Your task to perform on an android device: Open Wikipedia Image 0: 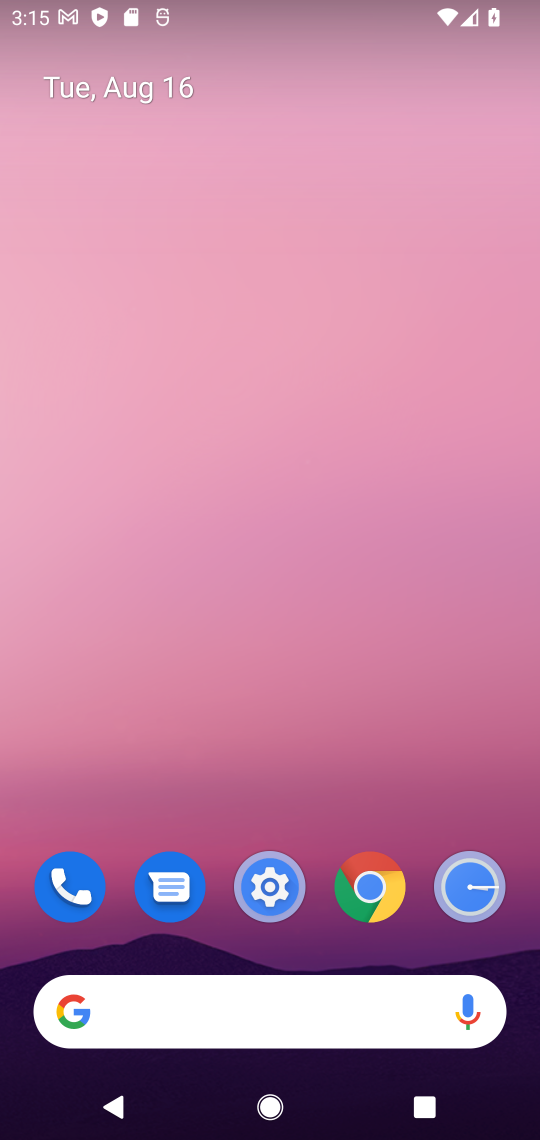
Step 0: drag from (394, 807) to (341, 2)
Your task to perform on an android device: Open Wikipedia Image 1: 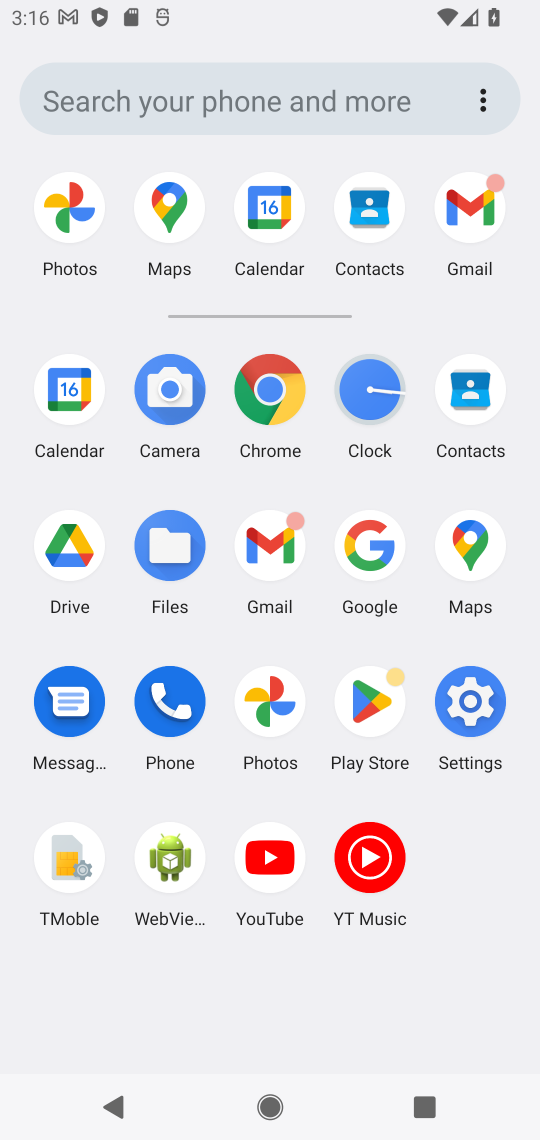
Step 1: click (267, 399)
Your task to perform on an android device: Open Wikipedia Image 2: 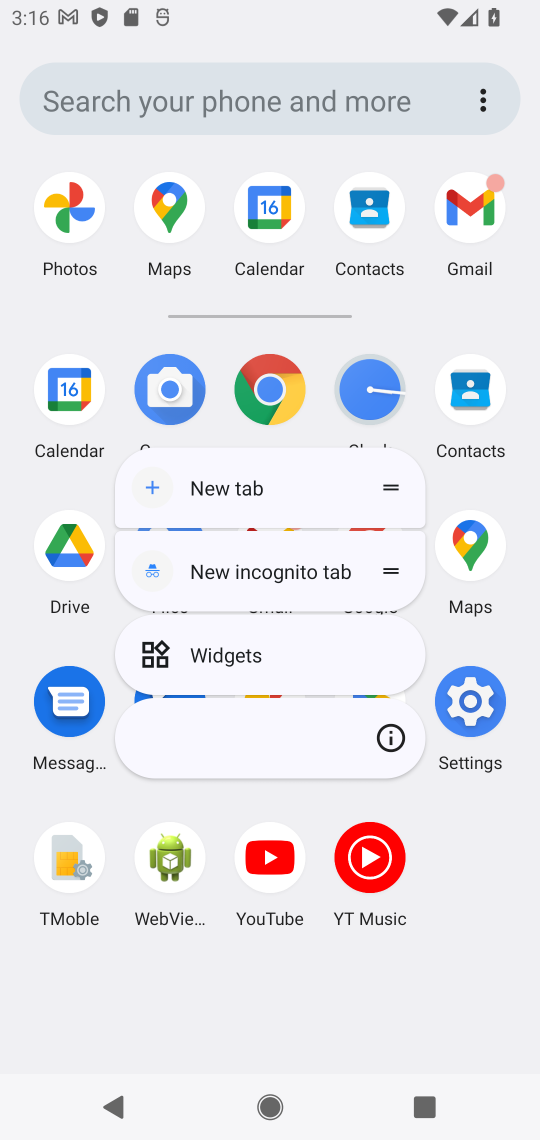
Step 2: click (267, 399)
Your task to perform on an android device: Open Wikipedia Image 3: 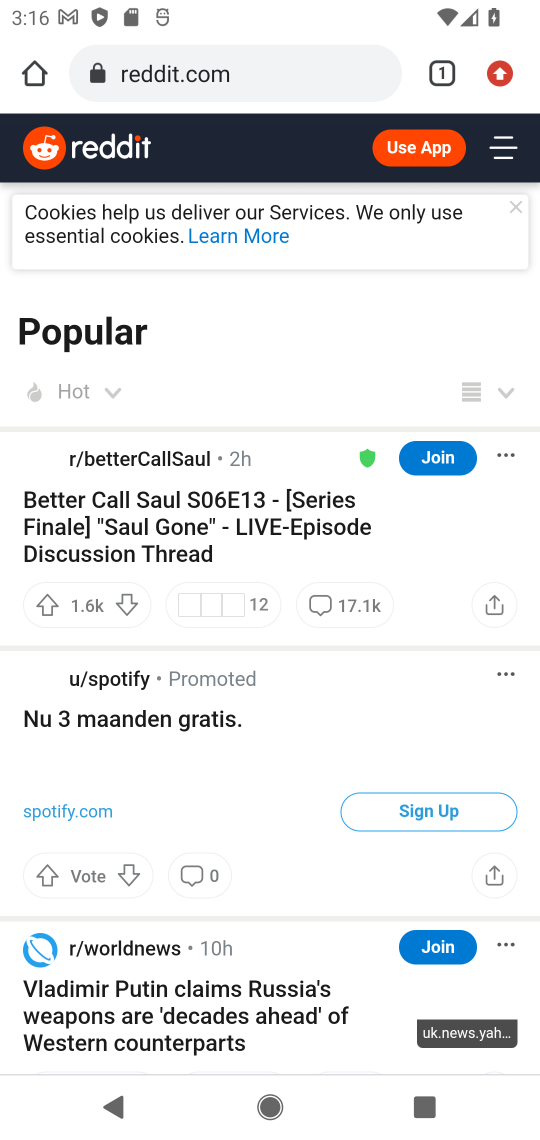
Step 3: click (230, 71)
Your task to perform on an android device: Open Wikipedia Image 4: 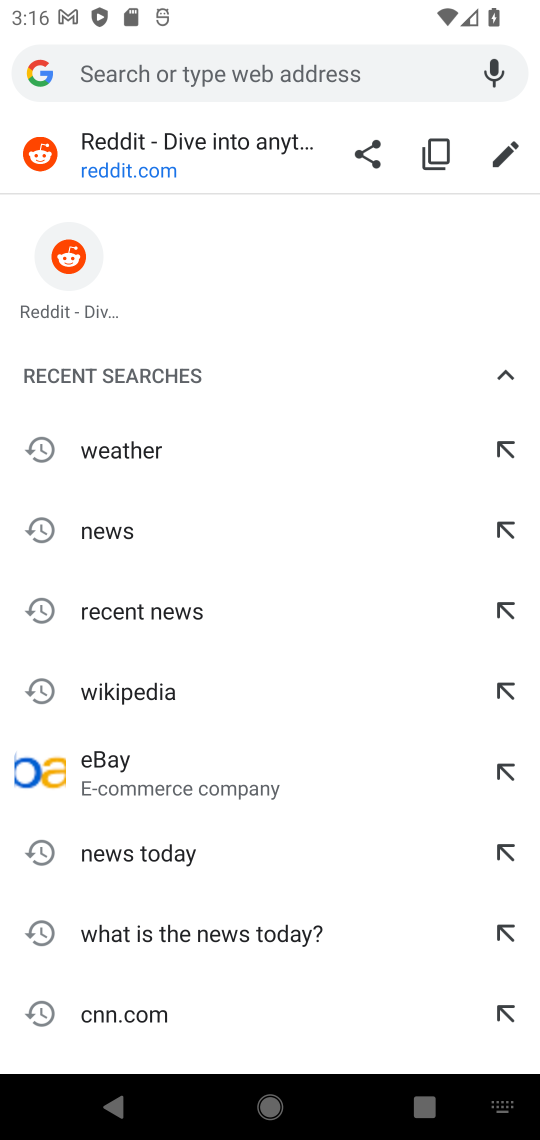
Step 4: type "wikipedia"
Your task to perform on an android device: Open Wikipedia Image 5: 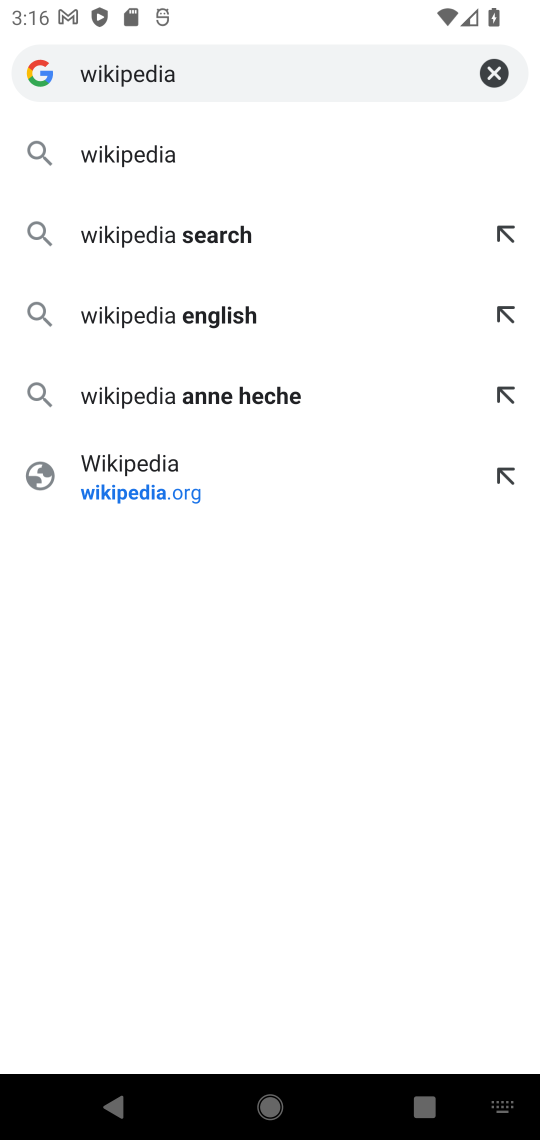
Step 5: click (145, 175)
Your task to perform on an android device: Open Wikipedia Image 6: 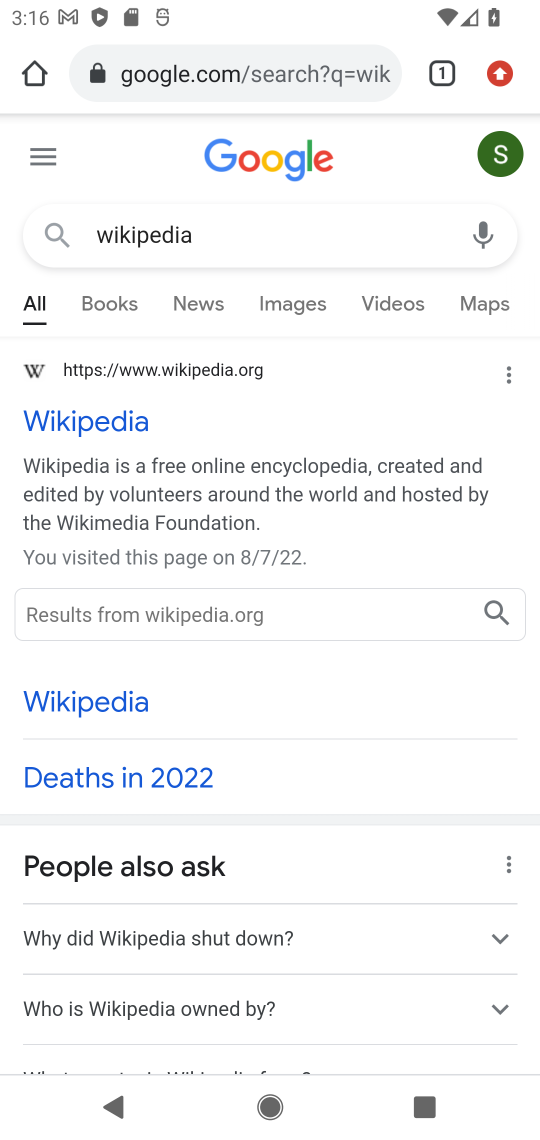
Step 6: click (69, 429)
Your task to perform on an android device: Open Wikipedia Image 7: 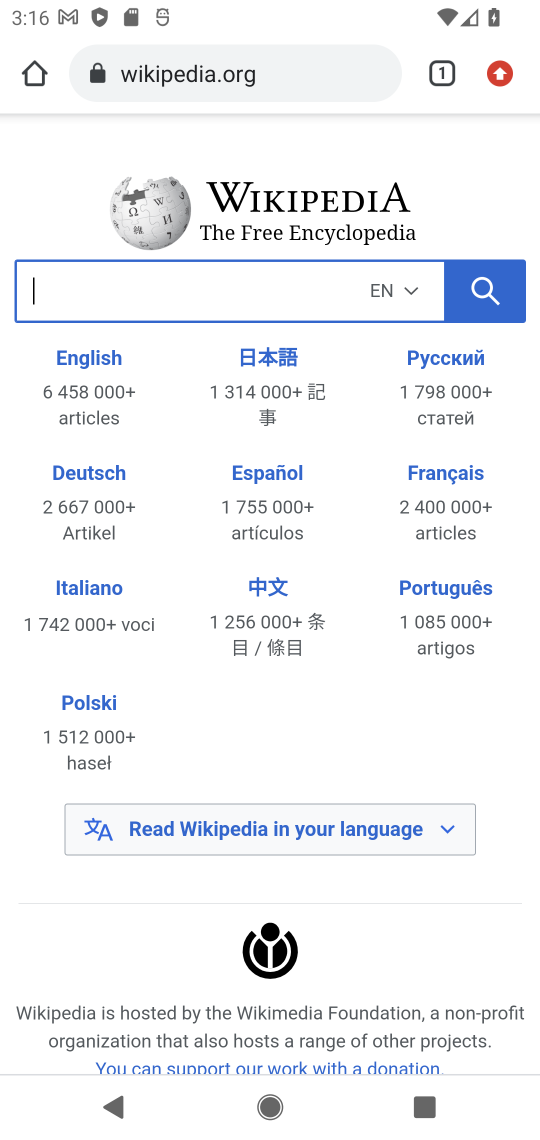
Step 7: task complete